Your task to perform on an android device: Go to CNN.com Image 0: 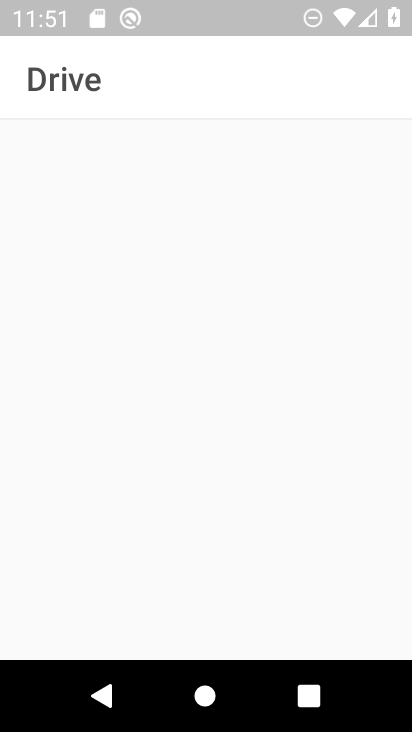
Step 0: press home button
Your task to perform on an android device: Go to CNN.com Image 1: 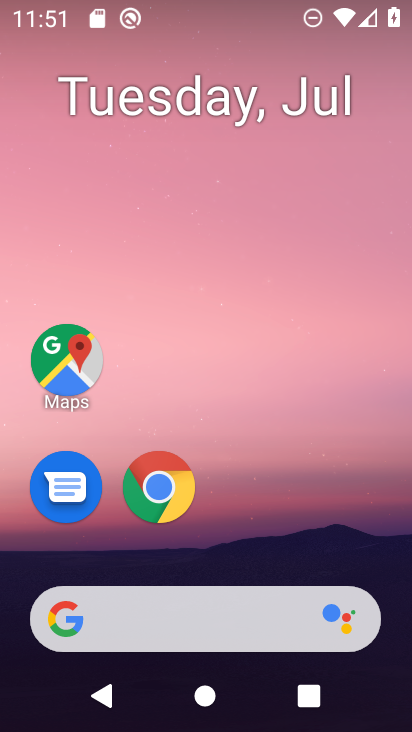
Step 1: click (163, 475)
Your task to perform on an android device: Go to CNN.com Image 2: 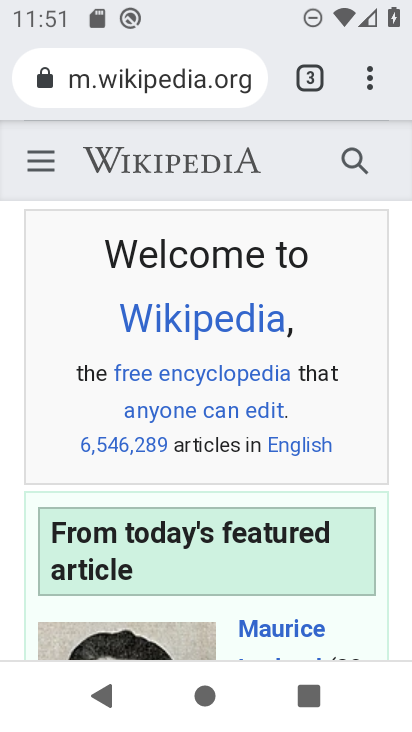
Step 2: click (185, 81)
Your task to perform on an android device: Go to CNN.com Image 3: 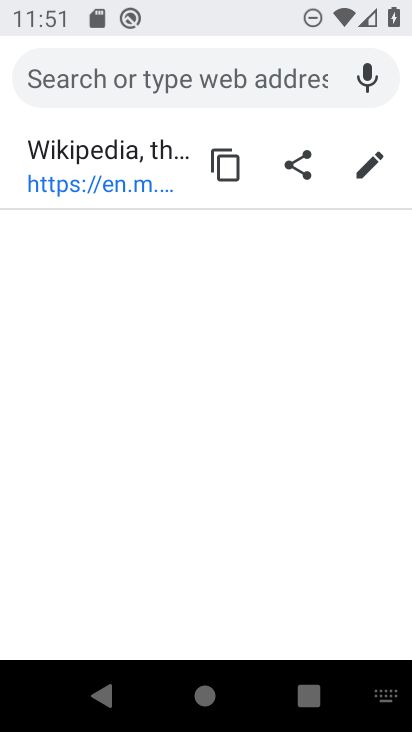
Step 3: type "cnn.com"
Your task to perform on an android device: Go to CNN.com Image 4: 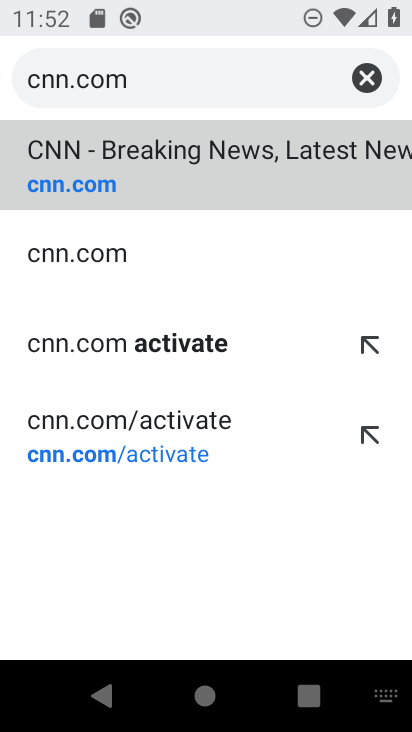
Step 4: click (170, 176)
Your task to perform on an android device: Go to CNN.com Image 5: 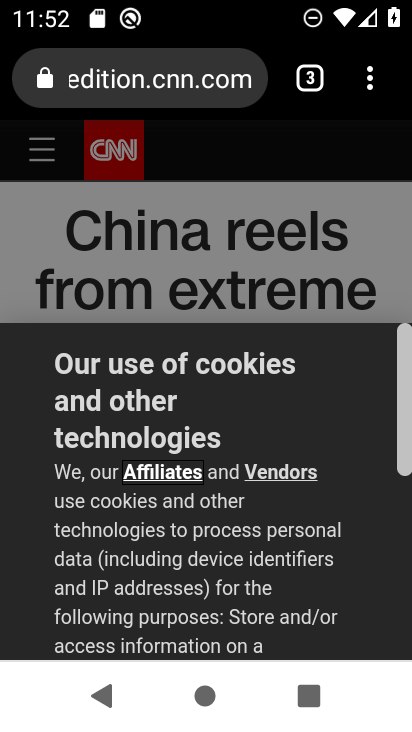
Step 5: task complete